Your task to perform on an android device: Go to Wikipedia Image 0: 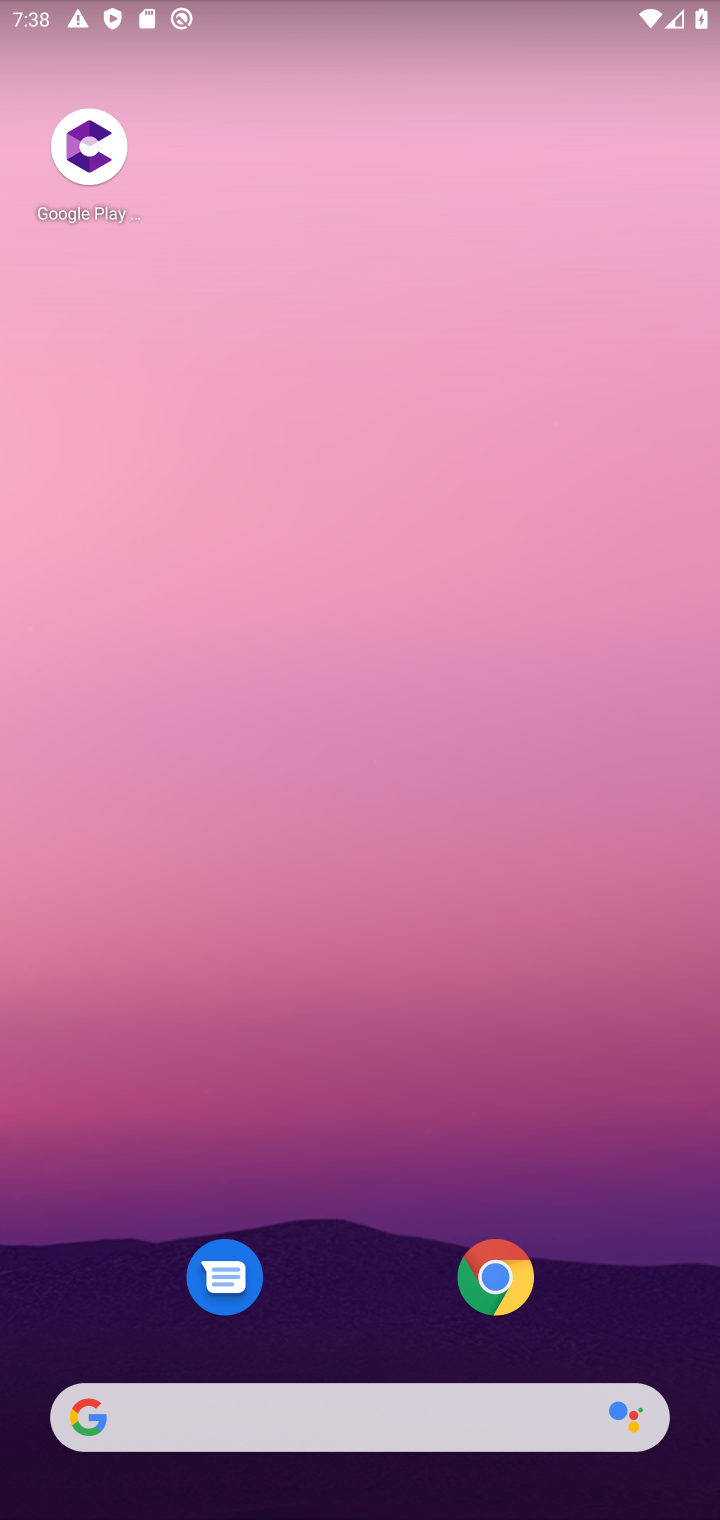
Step 0: drag from (391, 1411) to (376, 416)
Your task to perform on an android device: Go to Wikipedia Image 1: 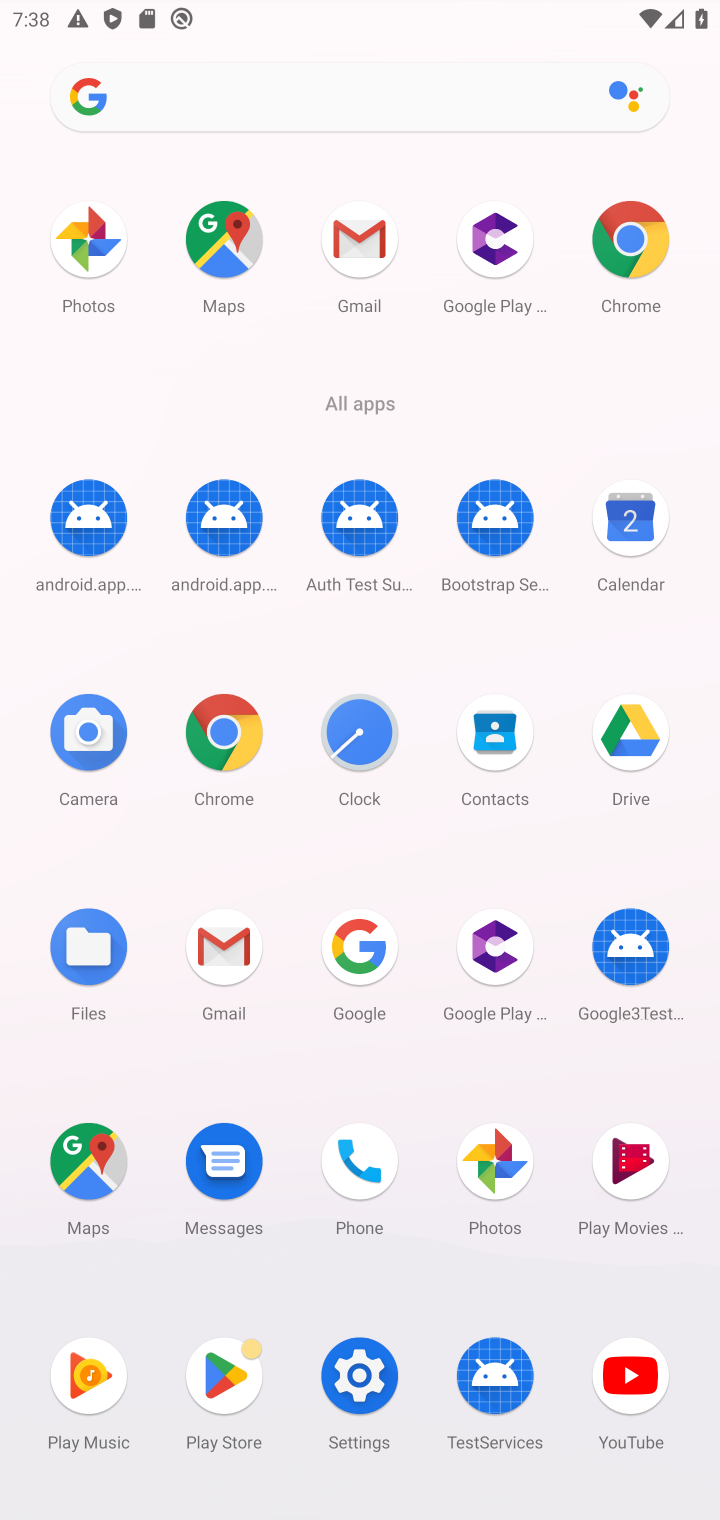
Step 1: click (204, 737)
Your task to perform on an android device: Go to Wikipedia Image 2: 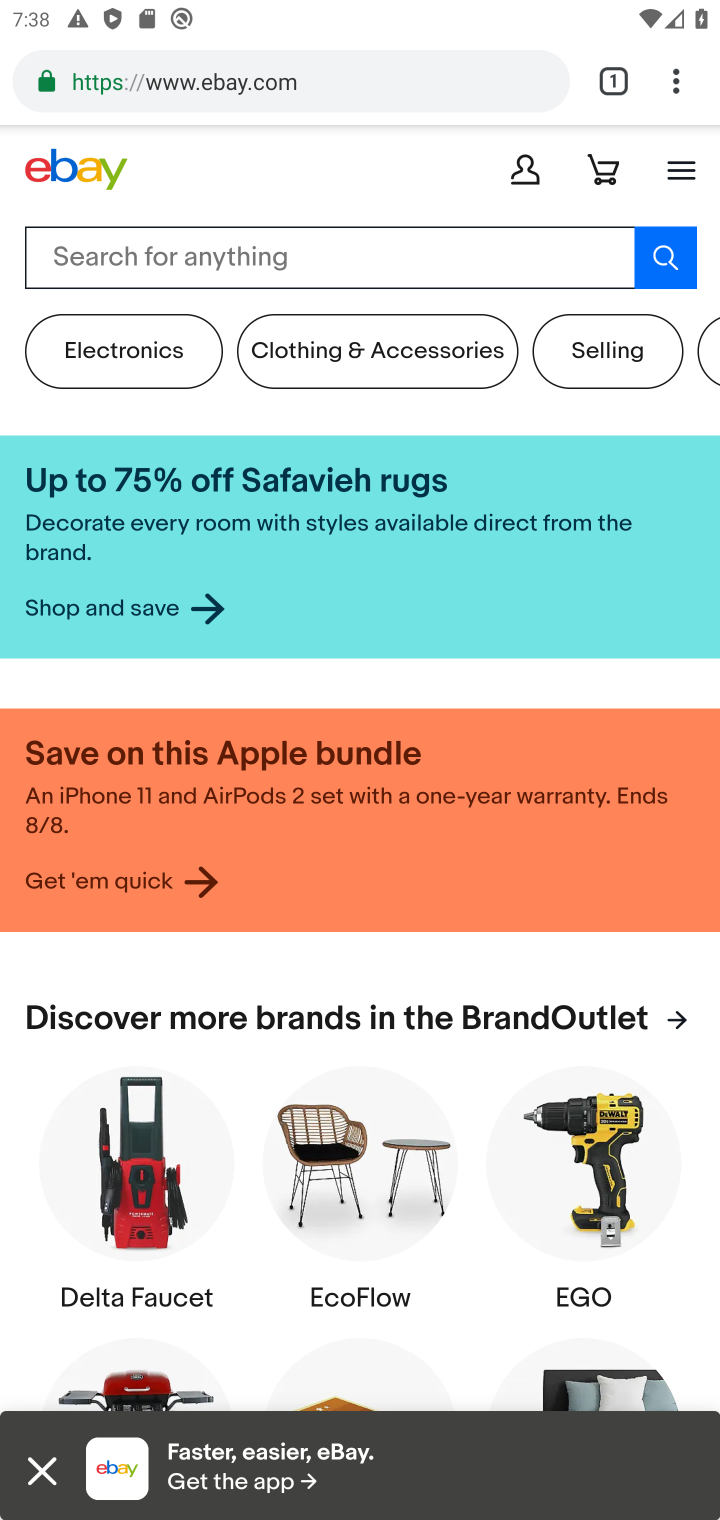
Step 2: click (319, 76)
Your task to perform on an android device: Go to Wikipedia Image 3: 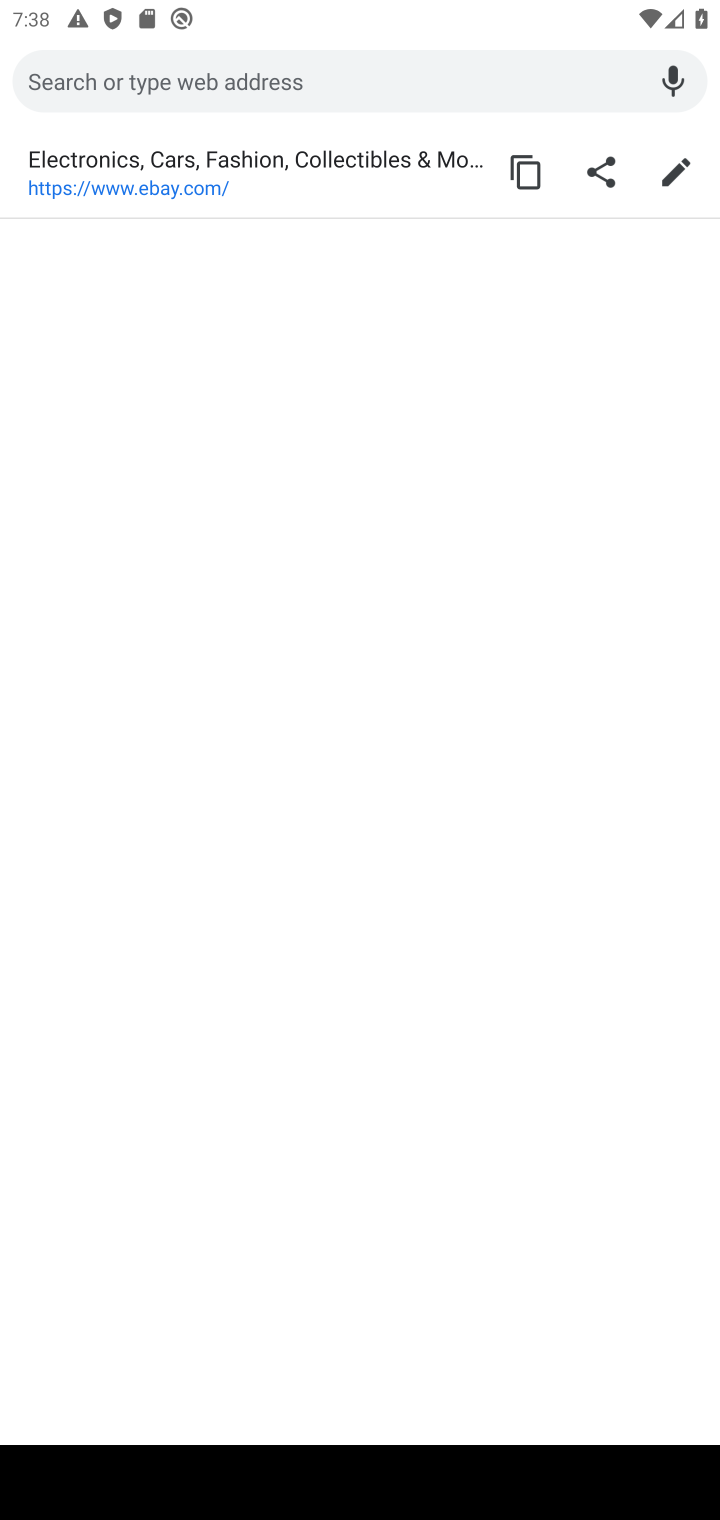
Step 3: type "wikipedia"
Your task to perform on an android device: Go to Wikipedia Image 4: 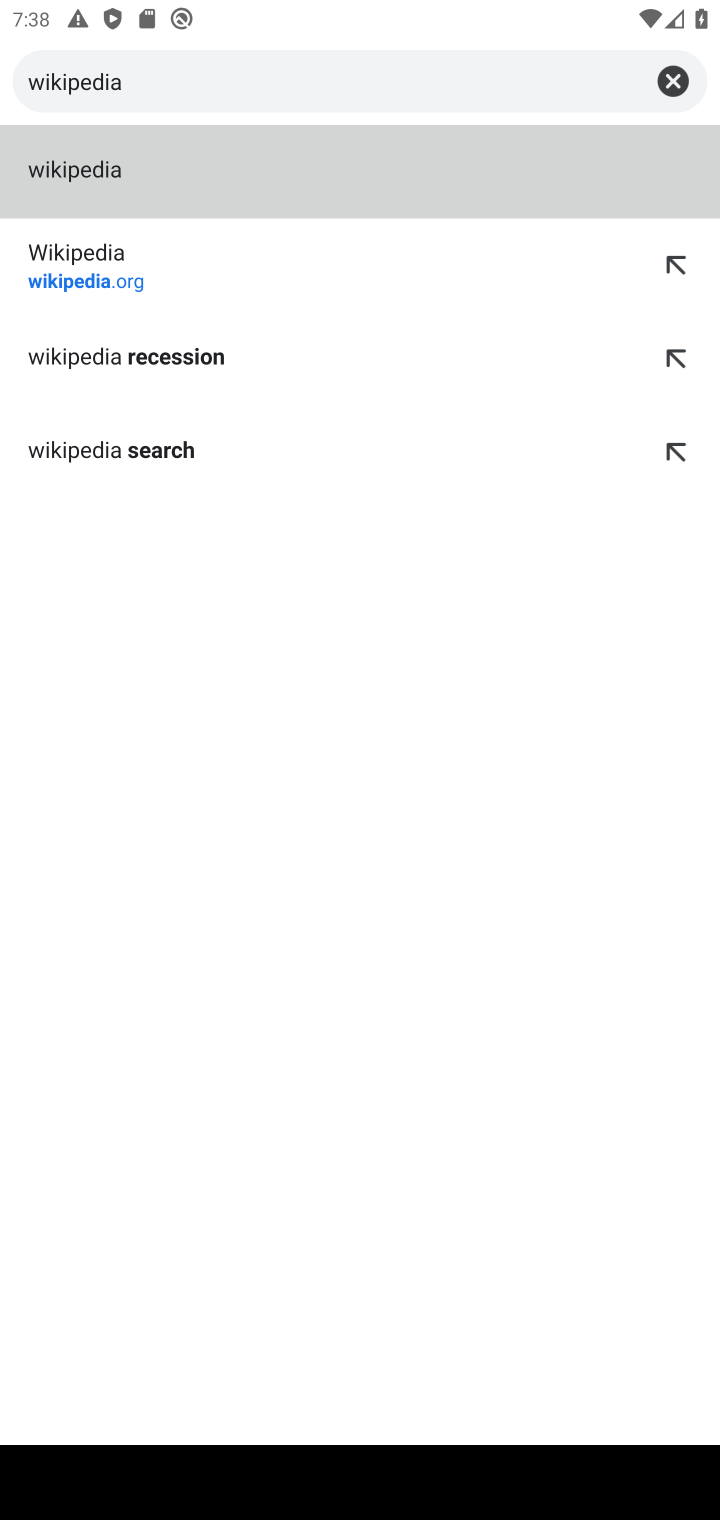
Step 4: click (179, 162)
Your task to perform on an android device: Go to Wikipedia Image 5: 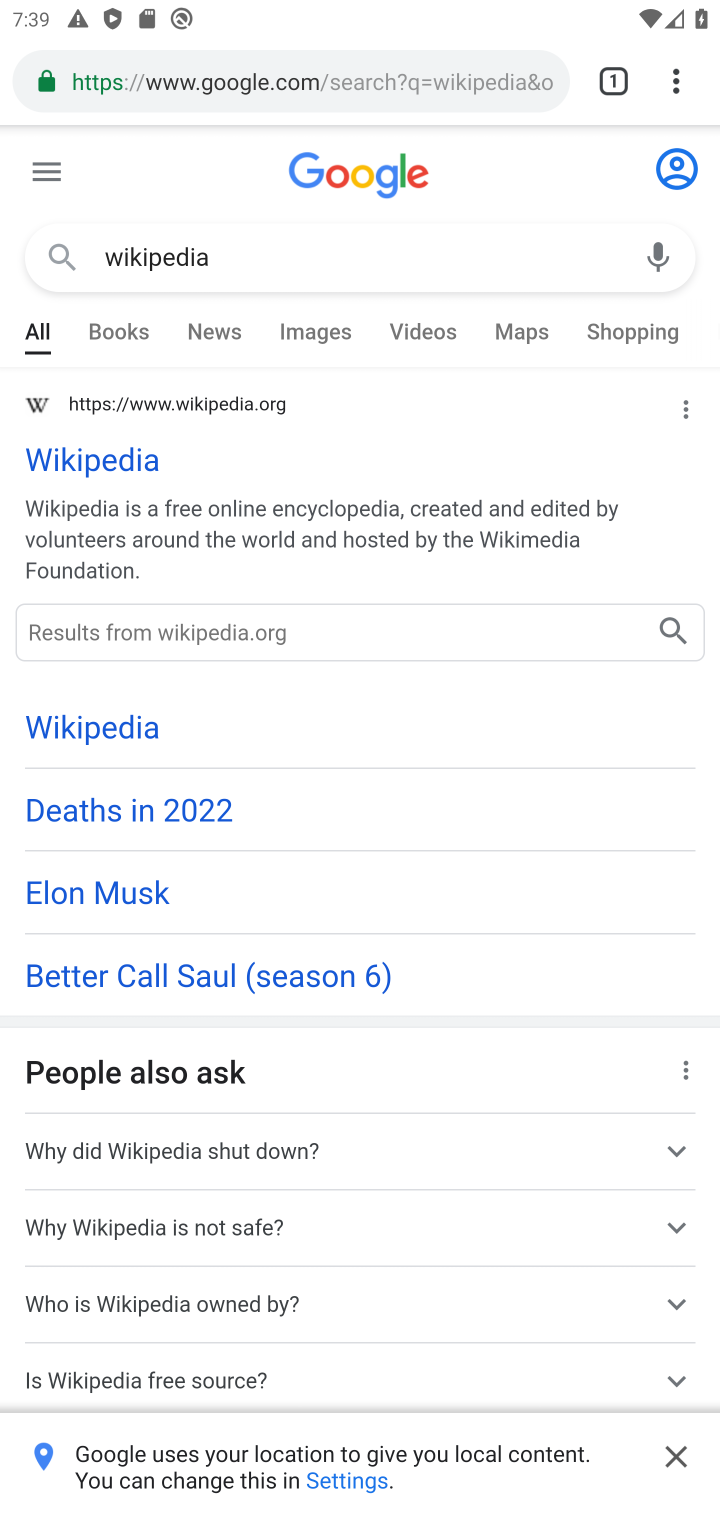
Step 5: task complete